Your task to perform on an android device: open sync settings in chrome Image 0: 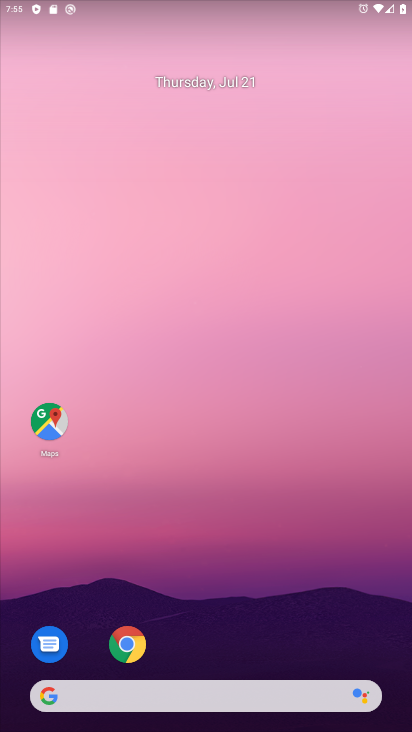
Step 0: drag from (360, 626) to (381, 156)
Your task to perform on an android device: open sync settings in chrome Image 1: 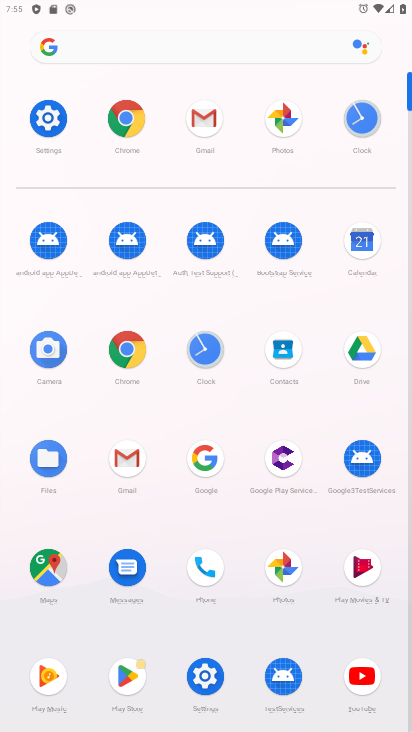
Step 1: click (124, 351)
Your task to perform on an android device: open sync settings in chrome Image 2: 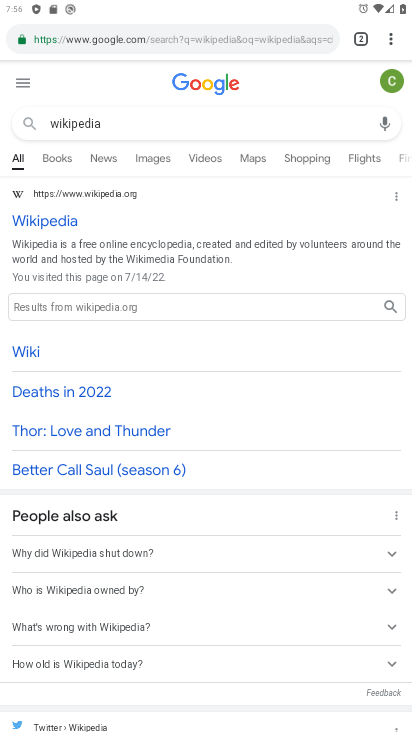
Step 2: click (392, 42)
Your task to perform on an android device: open sync settings in chrome Image 3: 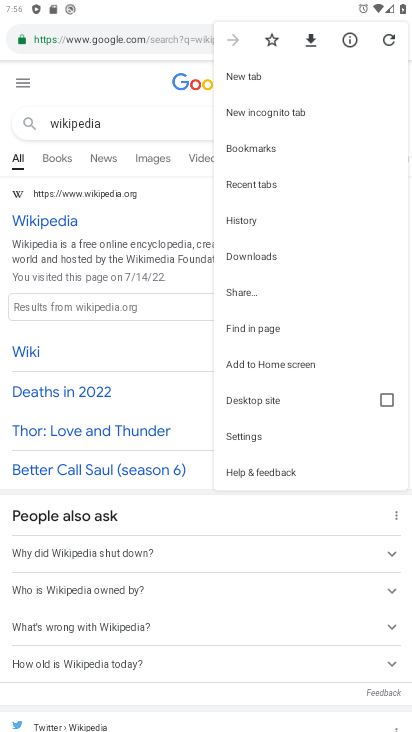
Step 3: click (264, 437)
Your task to perform on an android device: open sync settings in chrome Image 4: 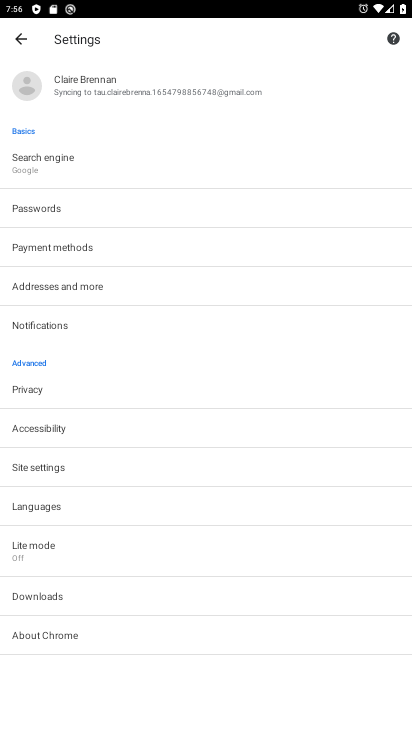
Step 4: click (230, 466)
Your task to perform on an android device: open sync settings in chrome Image 5: 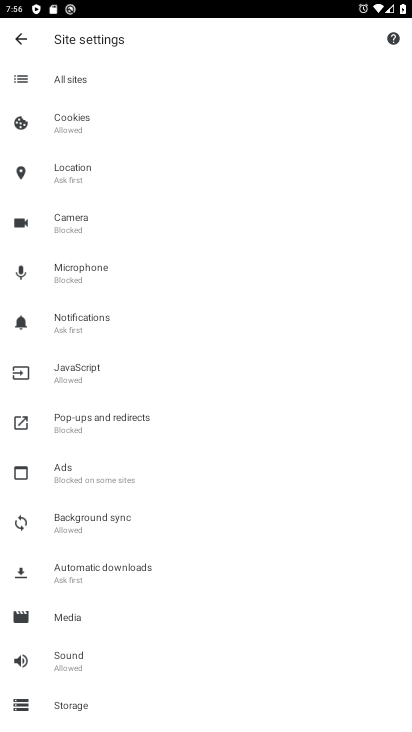
Step 5: drag from (296, 497) to (309, 436)
Your task to perform on an android device: open sync settings in chrome Image 6: 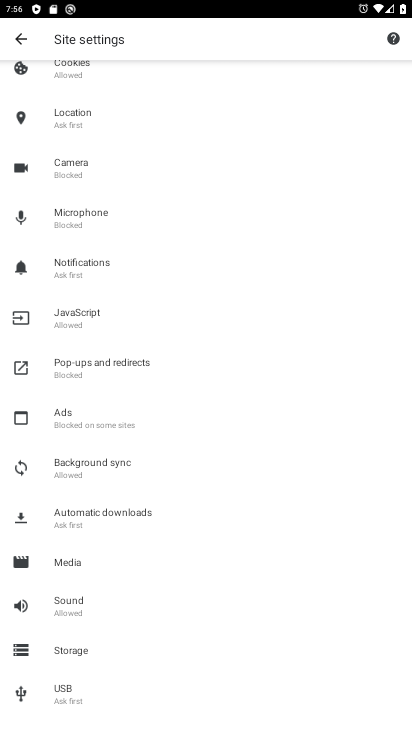
Step 6: drag from (307, 527) to (310, 421)
Your task to perform on an android device: open sync settings in chrome Image 7: 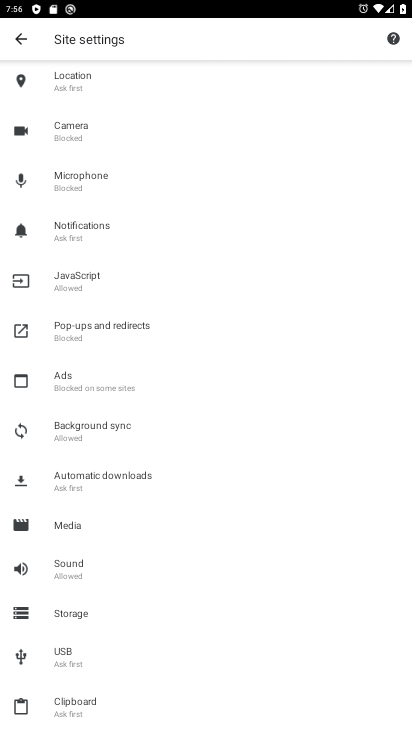
Step 7: click (223, 429)
Your task to perform on an android device: open sync settings in chrome Image 8: 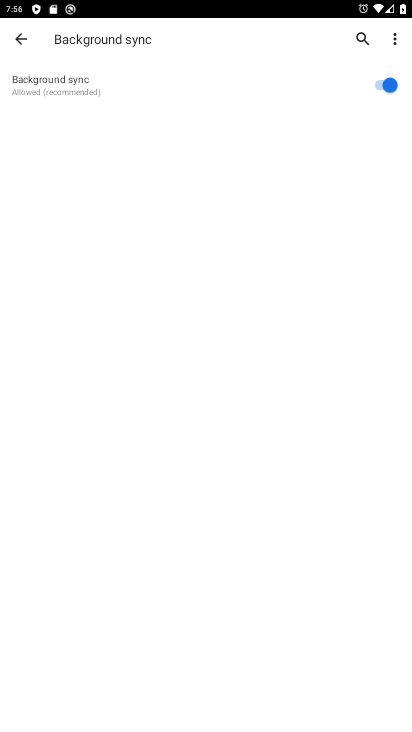
Step 8: task complete